Your task to perform on an android device: Play the last video I watched on Youtube Image 0: 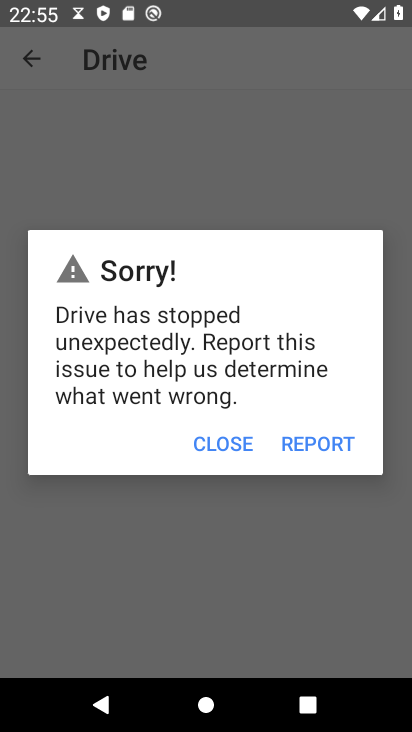
Step 0: press home button
Your task to perform on an android device: Play the last video I watched on Youtube Image 1: 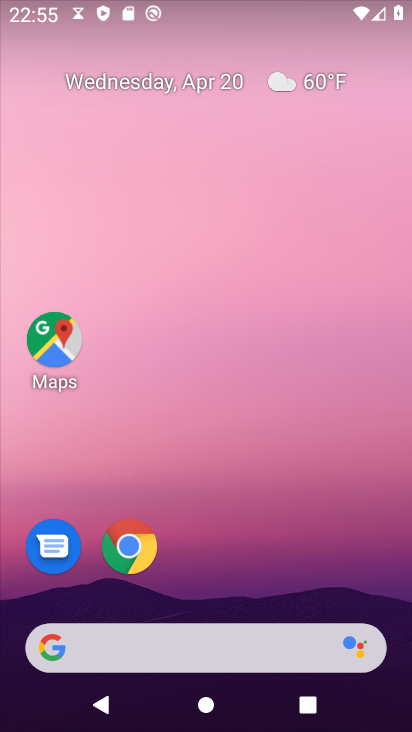
Step 1: drag from (235, 582) to (237, 106)
Your task to perform on an android device: Play the last video I watched on Youtube Image 2: 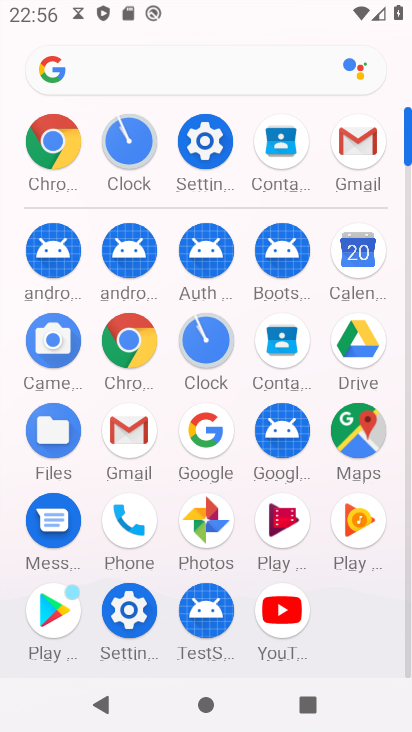
Step 2: click (279, 626)
Your task to perform on an android device: Play the last video I watched on Youtube Image 3: 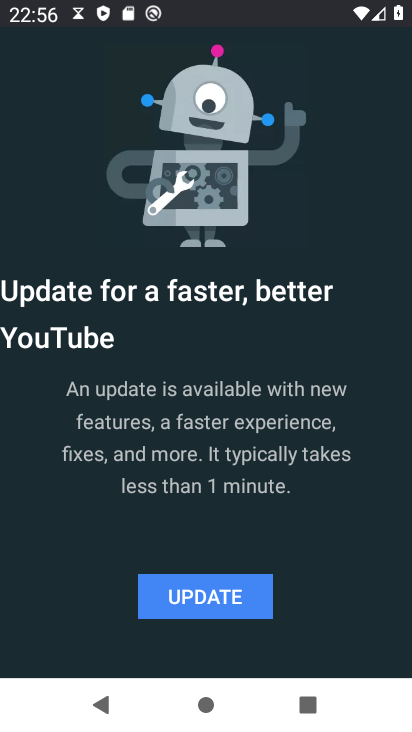
Step 3: click (226, 605)
Your task to perform on an android device: Play the last video I watched on Youtube Image 4: 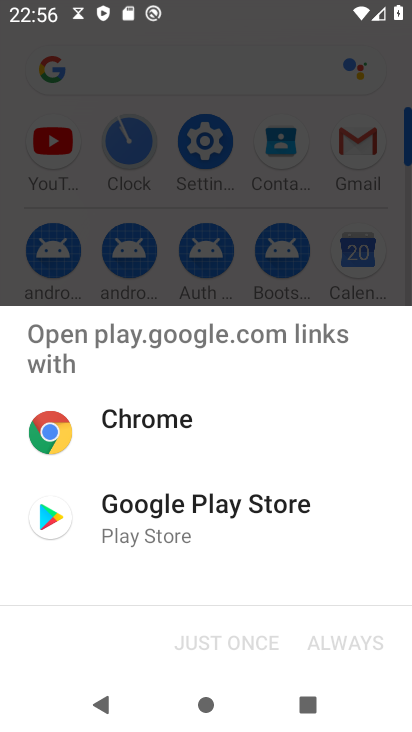
Step 4: click (160, 513)
Your task to perform on an android device: Play the last video I watched on Youtube Image 5: 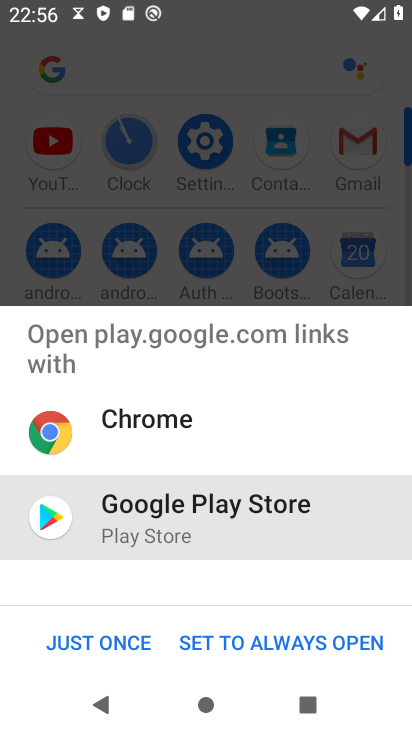
Step 5: click (94, 644)
Your task to perform on an android device: Play the last video I watched on Youtube Image 6: 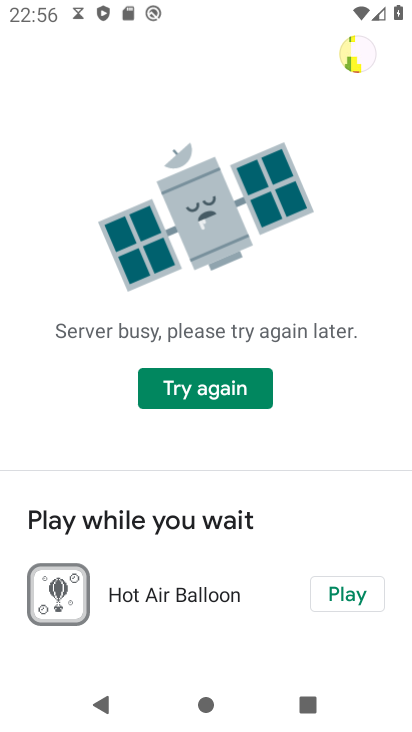
Step 6: click (213, 387)
Your task to perform on an android device: Play the last video I watched on Youtube Image 7: 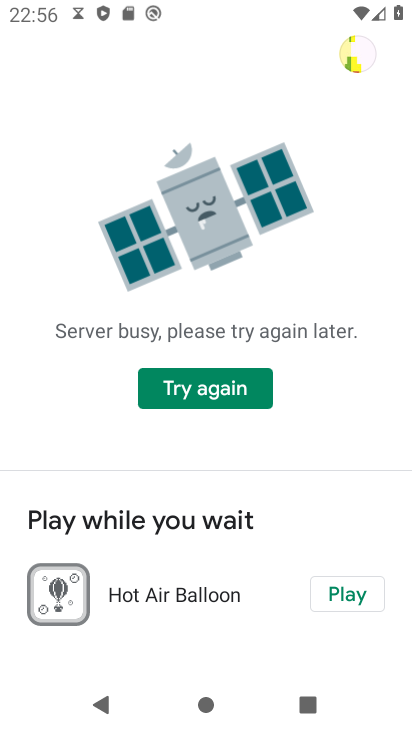
Step 7: task complete